Your task to perform on an android device: set default search engine in the chrome app Image 0: 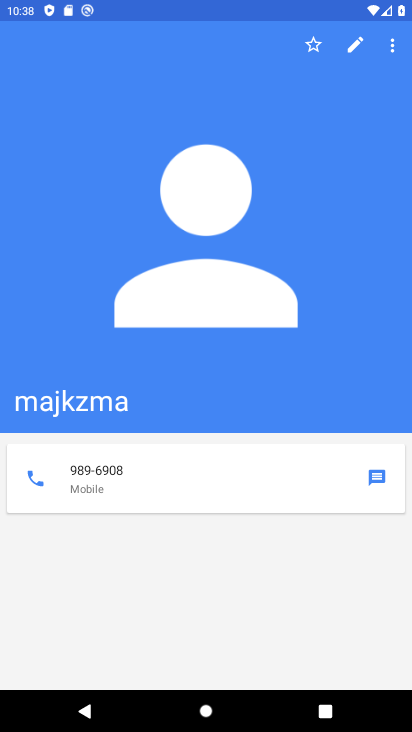
Step 0: click (405, 660)
Your task to perform on an android device: set default search engine in the chrome app Image 1: 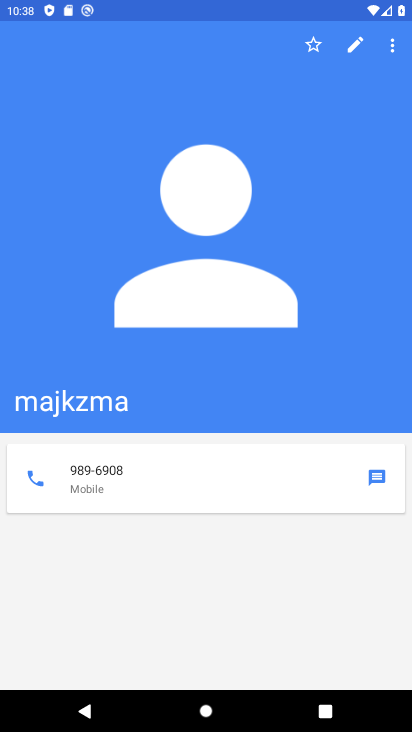
Step 1: press home button
Your task to perform on an android device: set default search engine in the chrome app Image 2: 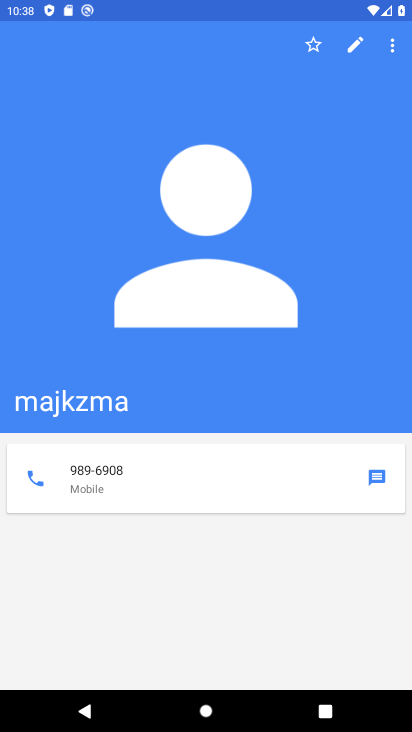
Step 2: press home button
Your task to perform on an android device: set default search engine in the chrome app Image 3: 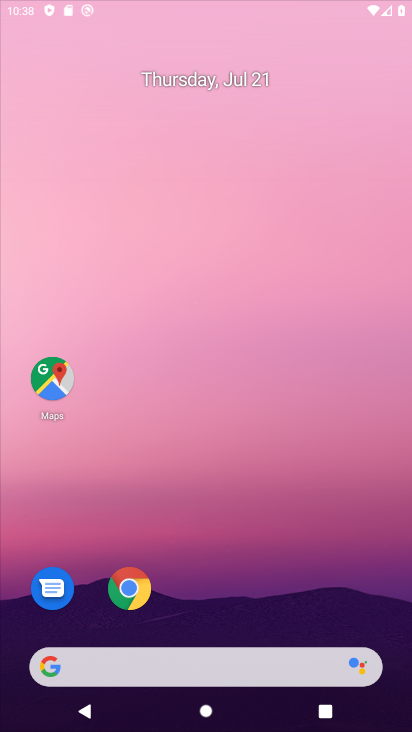
Step 3: drag from (245, 571) to (258, 195)
Your task to perform on an android device: set default search engine in the chrome app Image 4: 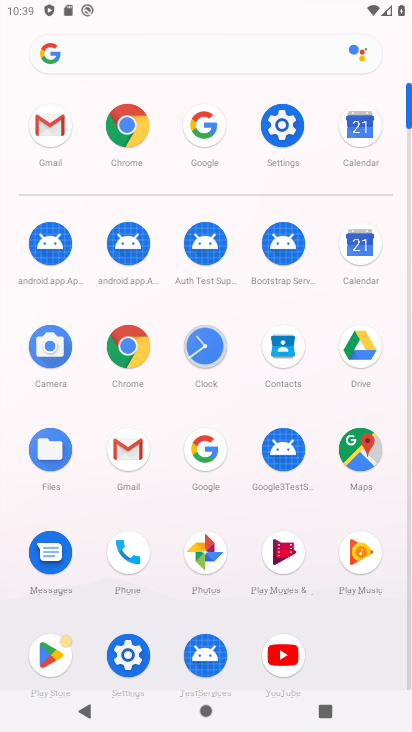
Step 4: click (120, 342)
Your task to perform on an android device: set default search engine in the chrome app Image 5: 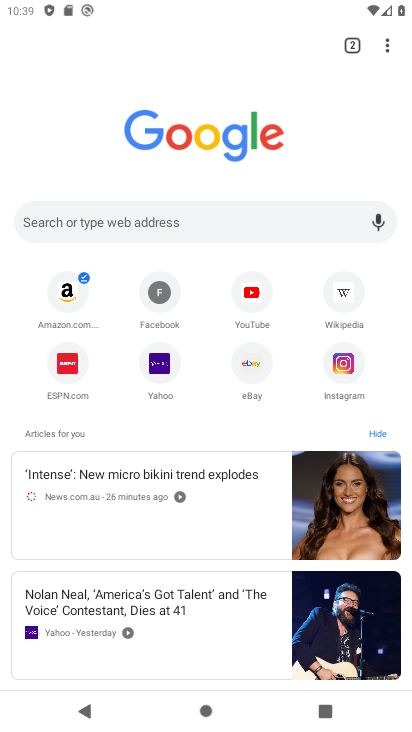
Step 5: drag from (385, 41) to (236, 387)
Your task to perform on an android device: set default search engine in the chrome app Image 6: 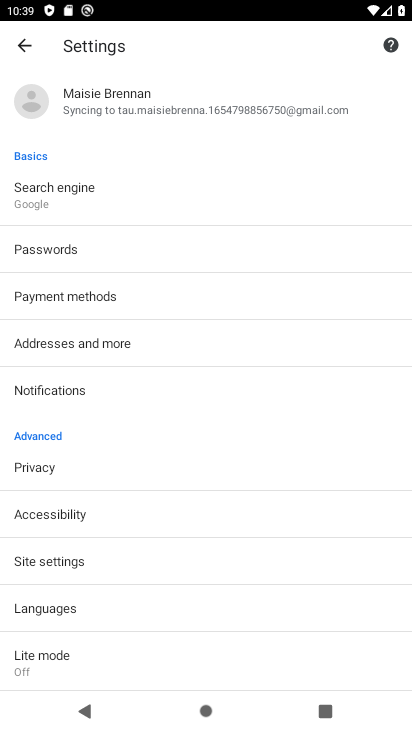
Step 6: drag from (168, 612) to (241, 310)
Your task to perform on an android device: set default search engine in the chrome app Image 7: 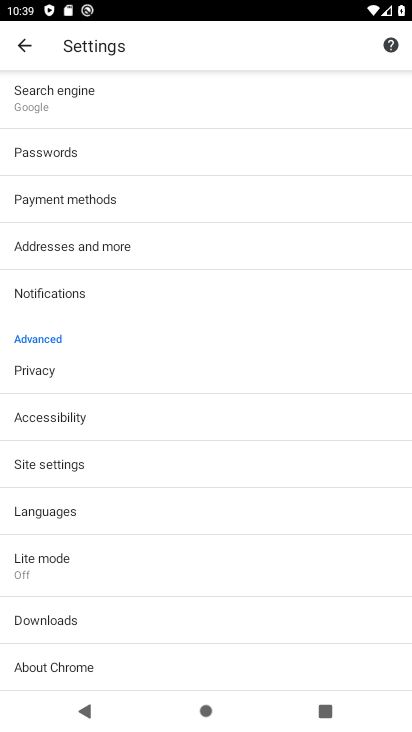
Step 7: click (137, 95)
Your task to perform on an android device: set default search engine in the chrome app Image 8: 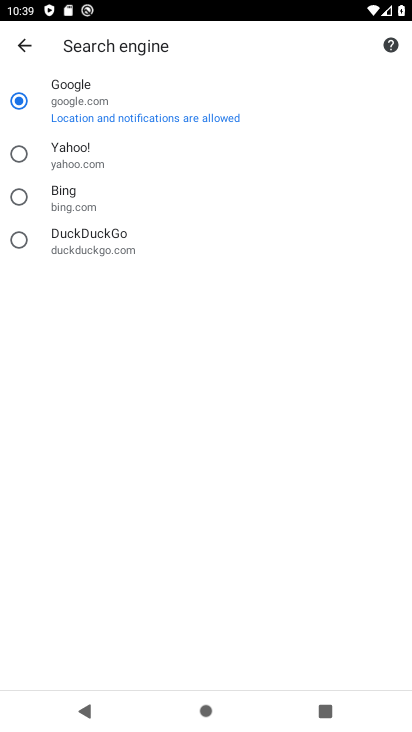
Step 8: task complete